Your task to perform on an android device: clear all cookies in the chrome app Image 0: 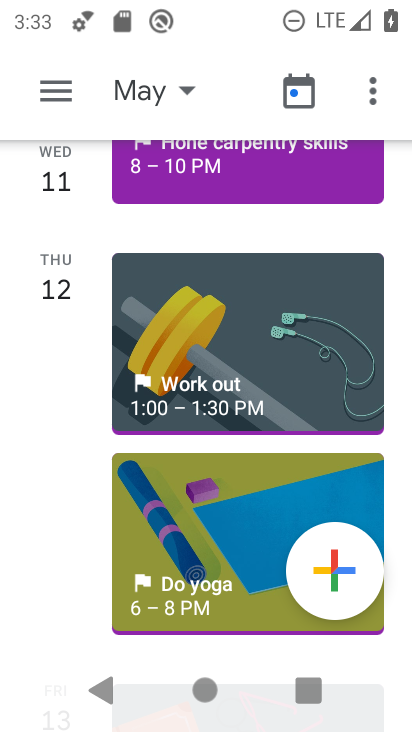
Step 0: press home button
Your task to perform on an android device: clear all cookies in the chrome app Image 1: 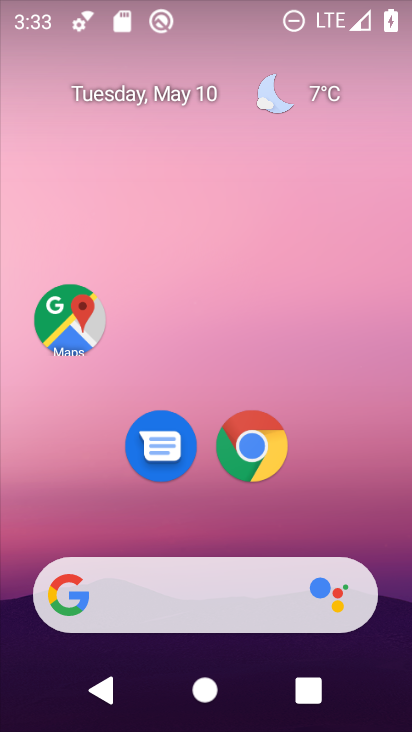
Step 1: click (252, 445)
Your task to perform on an android device: clear all cookies in the chrome app Image 2: 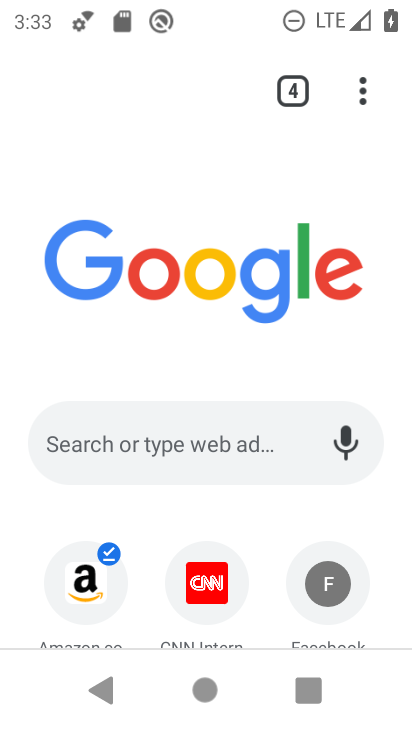
Step 2: click (365, 87)
Your task to perform on an android device: clear all cookies in the chrome app Image 3: 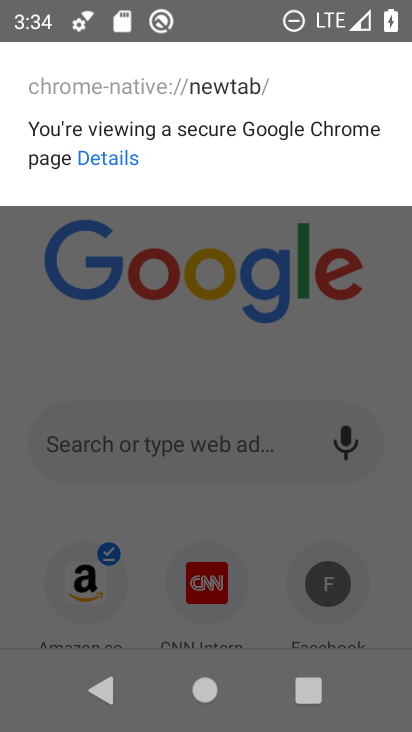
Step 3: click (353, 294)
Your task to perform on an android device: clear all cookies in the chrome app Image 4: 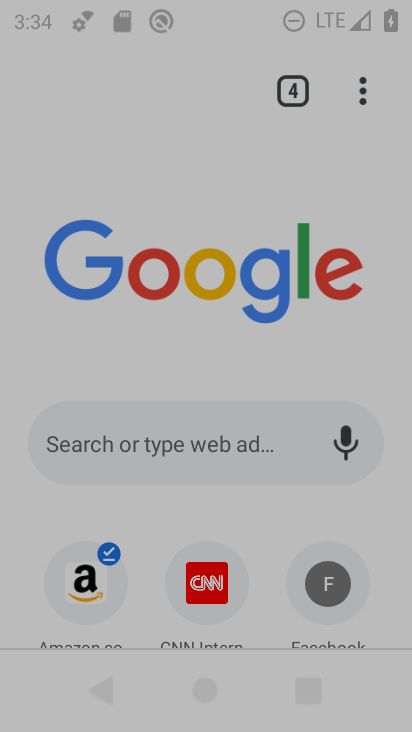
Step 4: click (353, 294)
Your task to perform on an android device: clear all cookies in the chrome app Image 5: 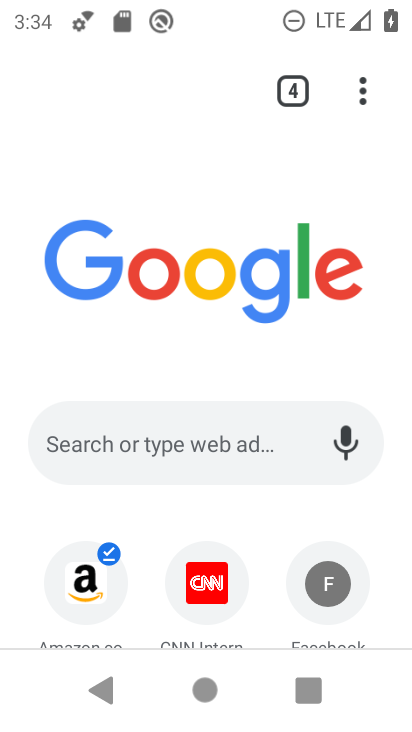
Step 5: click (365, 92)
Your task to perform on an android device: clear all cookies in the chrome app Image 6: 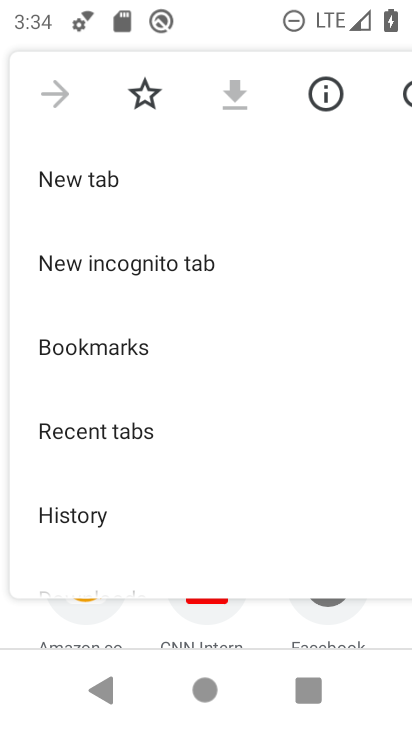
Step 6: drag from (153, 518) to (155, 404)
Your task to perform on an android device: clear all cookies in the chrome app Image 7: 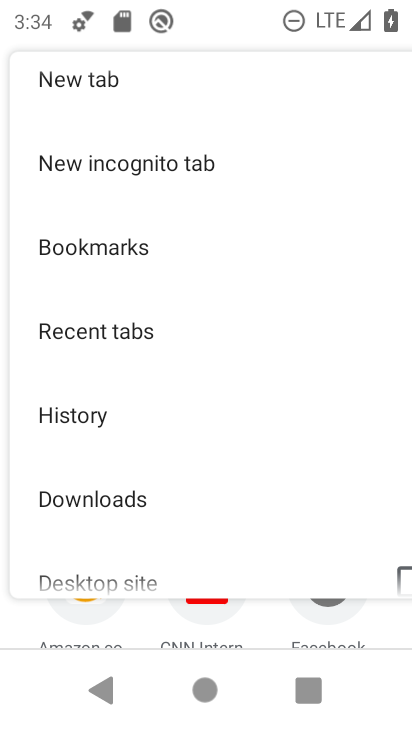
Step 7: click (127, 412)
Your task to perform on an android device: clear all cookies in the chrome app Image 8: 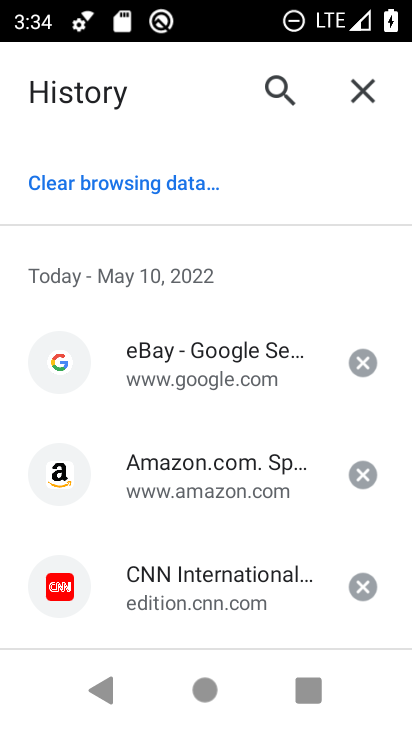
Step 8: click (137, 183)
Your task to perform on an android device: clear all cookies in the chrome app Image 9: 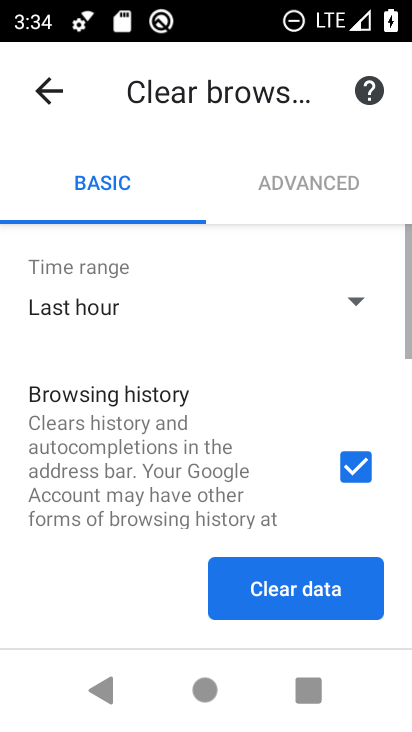
Step 9: click (332, 599)
Your task to perform on an android device: clear all cookies in the chrome app Image 10: 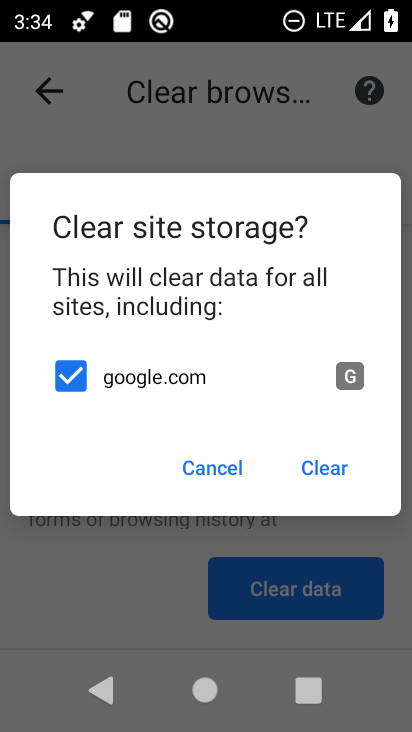
Step 10: click (328, 475)
Your task to perform on an android device: clear all cookies in the chrome app Image 11: 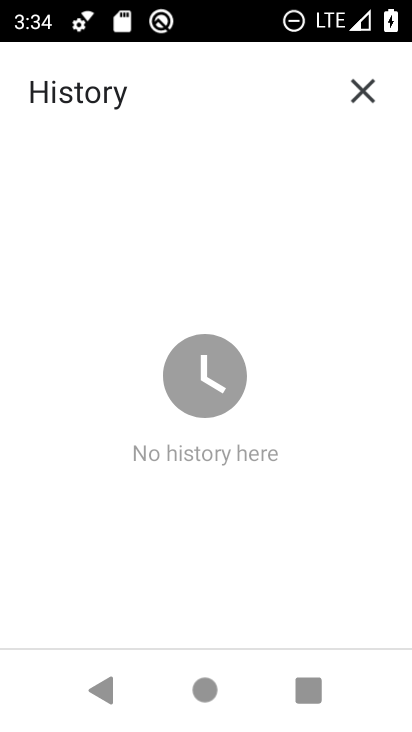
Step 11: task complete